Your task to perform on an android device: make emails show in primary in the gmail app Image 0: 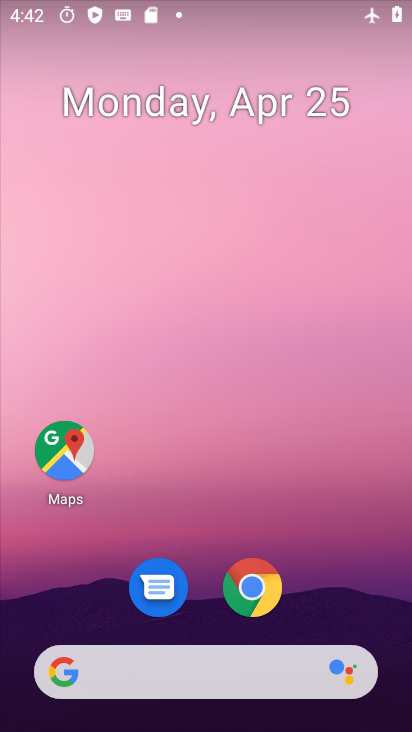
Step 0: drag from (342, 570) to (346, 38)
Your task to perform on an android device: make emails show in primary in the gmail app Image 1: 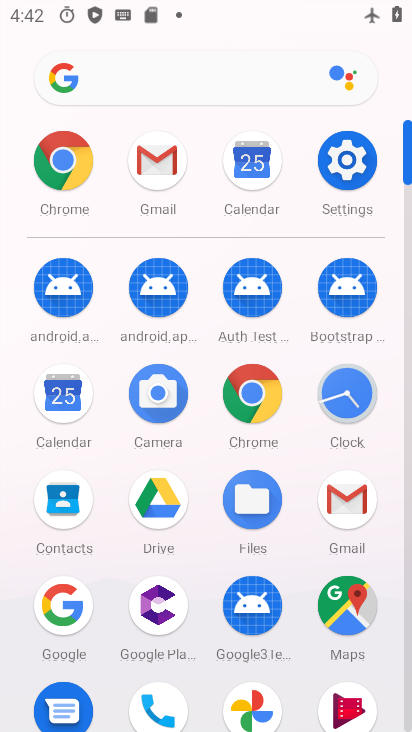
Step 1: click (340, 472)
Your task to perform on an android device: make emails show in primary in the gmail app Image 2: 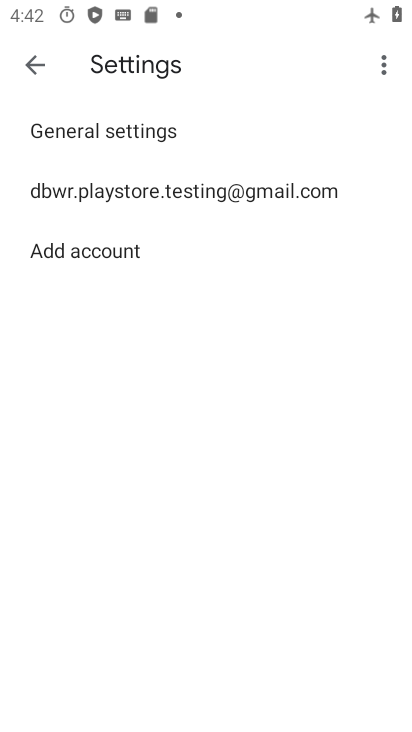
Step 2: click (225, 198)
Your task to perform on an android device: make emails show in primary in the gmail app Image 3: 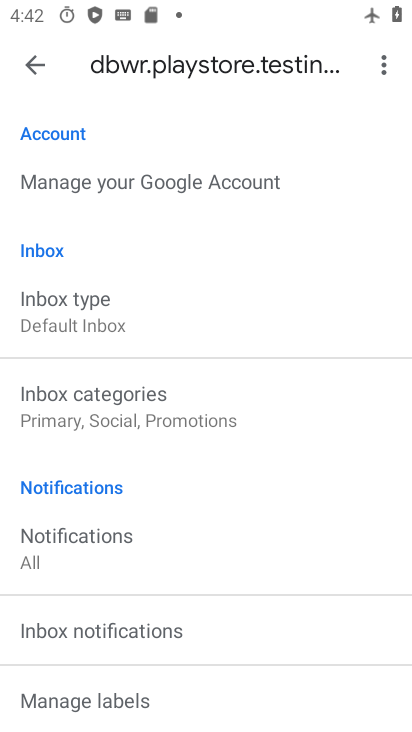
Step 3: drag from (244, 553) to (267, 278)
Your task to perform on an android device: make emails show in primary in the gmail app Image 4: 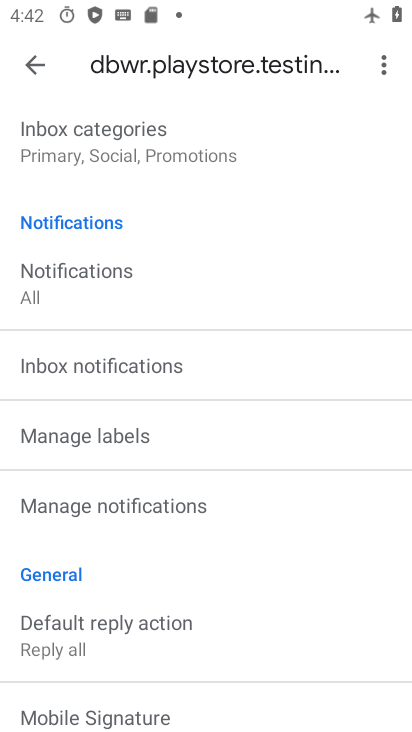
Step 4: click (138, 141)
Your task to perform on an android device: make emails show in primary in the gmail app Image 5: 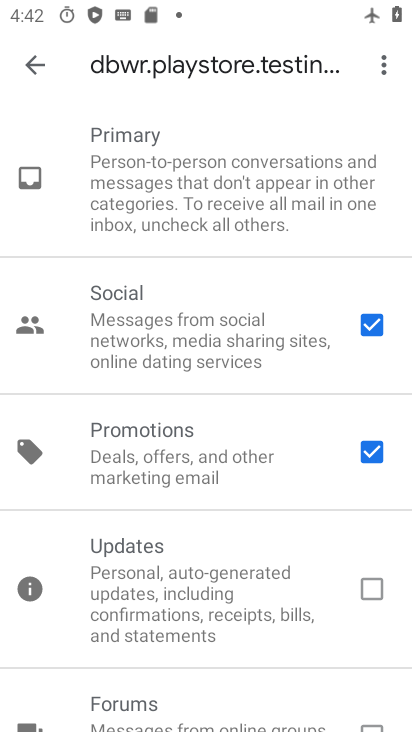
Step 5: task complete